Your task to perform on an android device: open app "Facebook Lite" (install if not already installed) Image 0: 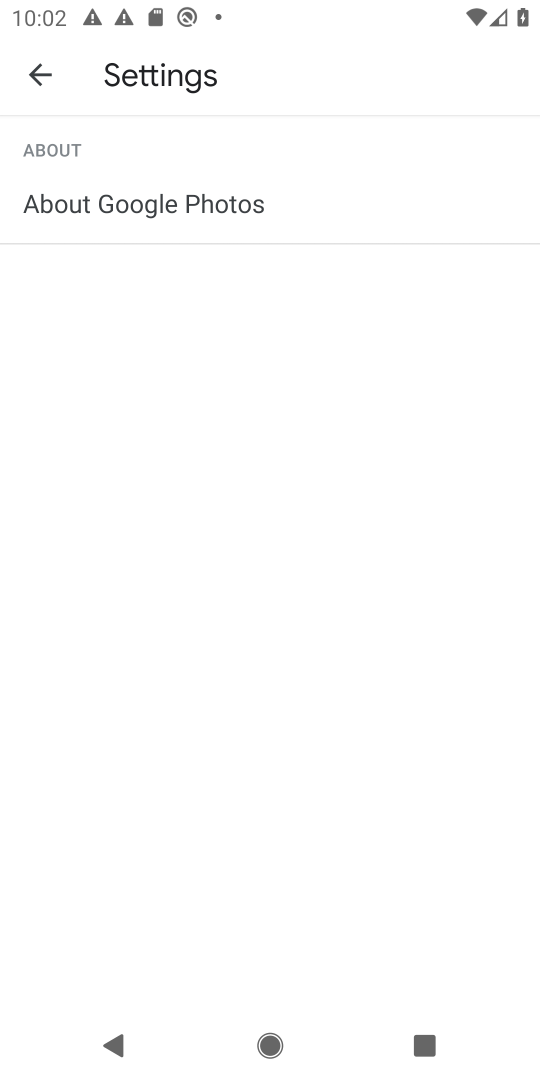
Step 0: drag from (238, 760) to (335, 220)
Your task to perform on an android device: open app "Facebook Lite" (install if not already installed) Image 1: 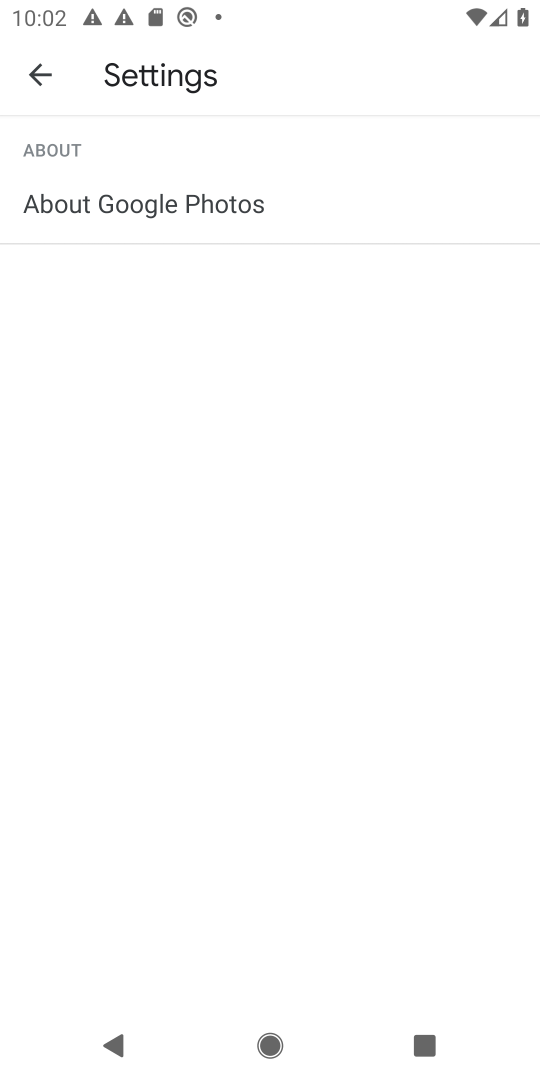
Step 1: press back button
Your task to perform on an android device: open app "Facebook Lite" (install if not already installed) Image 2: 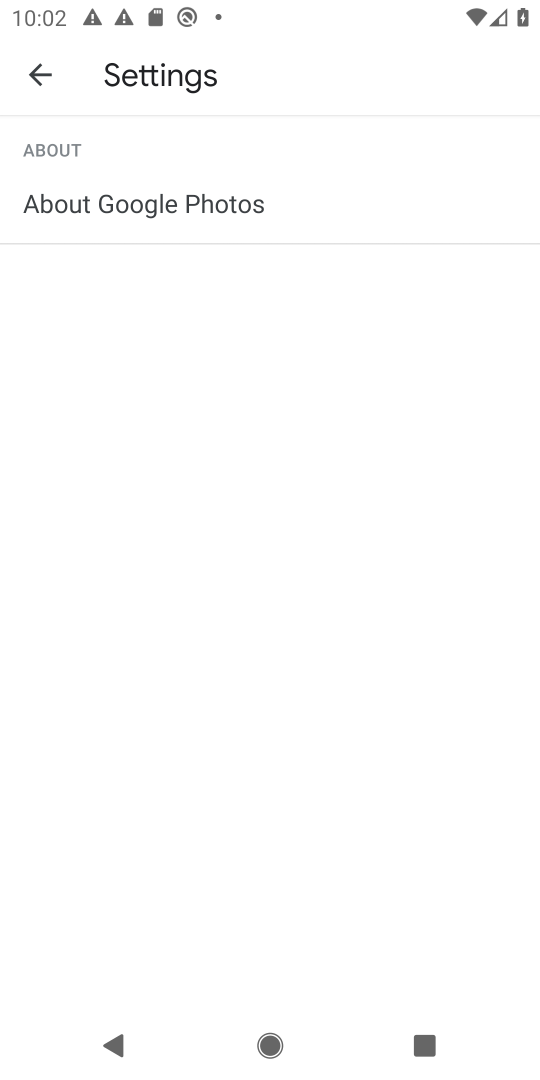
Step 2: press home button
Your task to perform on an android device: open app "Facebook Lite" (install if not already installed) Image 3: 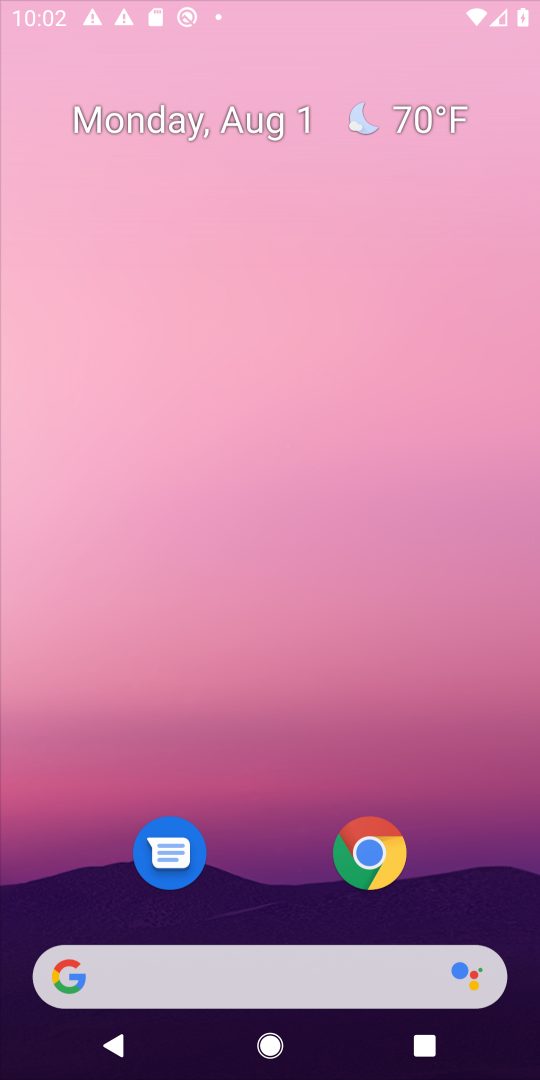
Step 3: drag from (248, 837) to (411, 155)
Your task to perform on an android device: open app "Facebook Lite" (install if not already installed) Image 4: 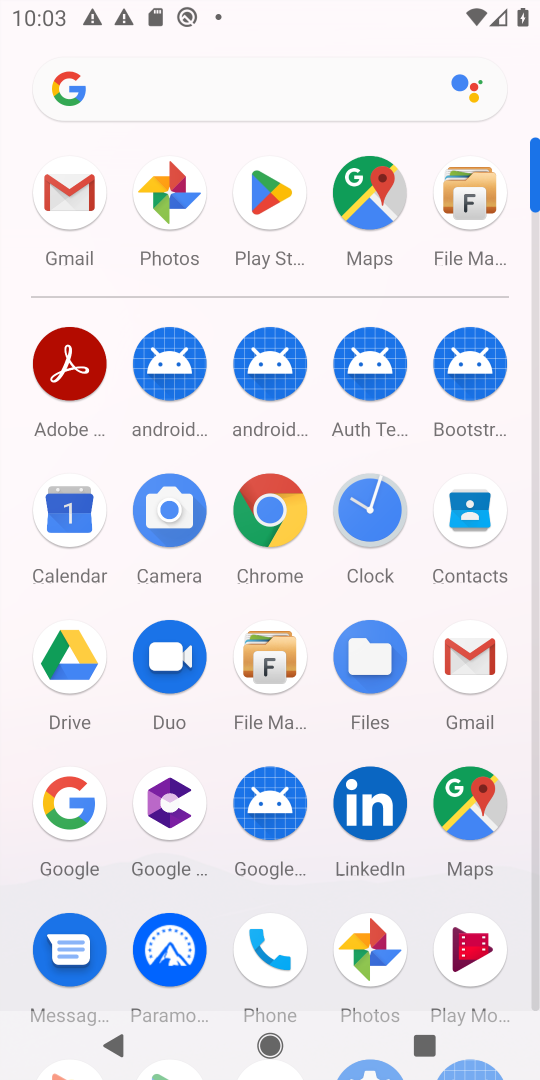
Step 4: drag from (223, 881) to (301, 363)
Your task to perform on an android device: open app "Facebook Lite" (install if not already installed) Image 5: 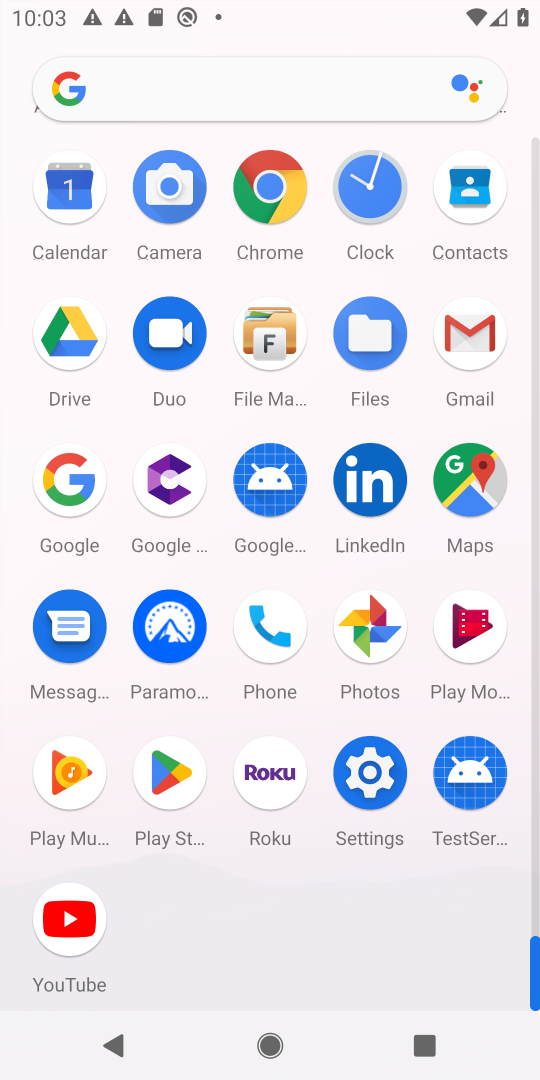
Step 5: click (167, 740)
Your task to perform on an android device: open app "Facebook Lite" (install if not already installed) Image 6: 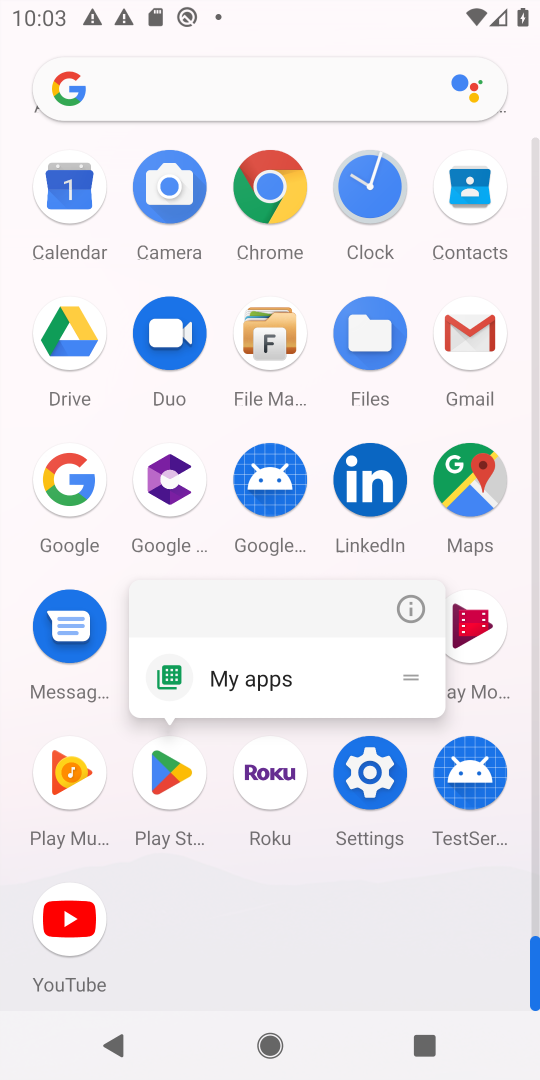
Step 6: click (406, 603)
Your task to perform on an android device: open app "Facebook Lite" (install if not already installed) Image 7: 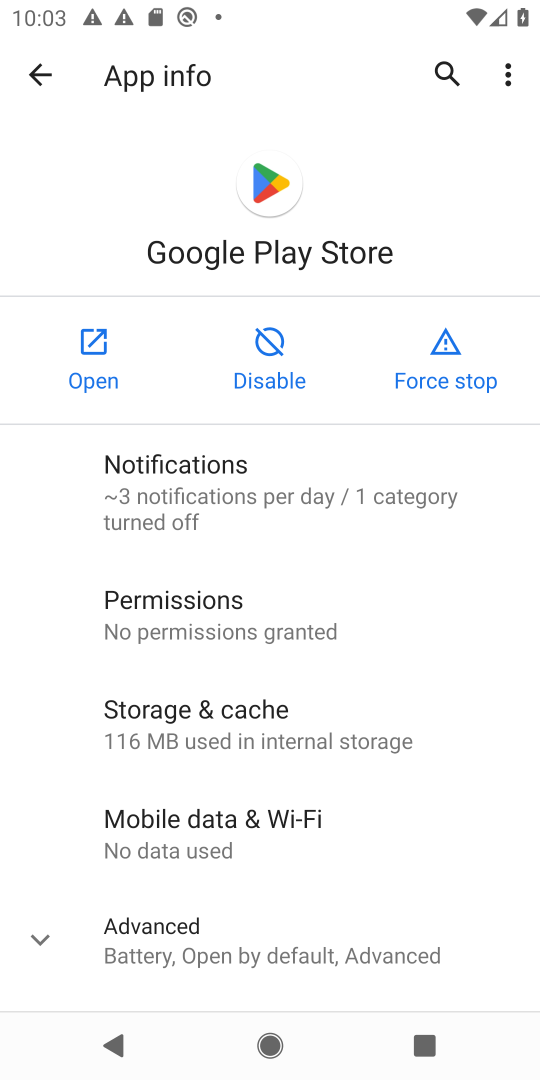
Step 7: click (92, 379)
Your task to perform on an android device: open app "Facebook Lite" (install if not already installed) Image 8: 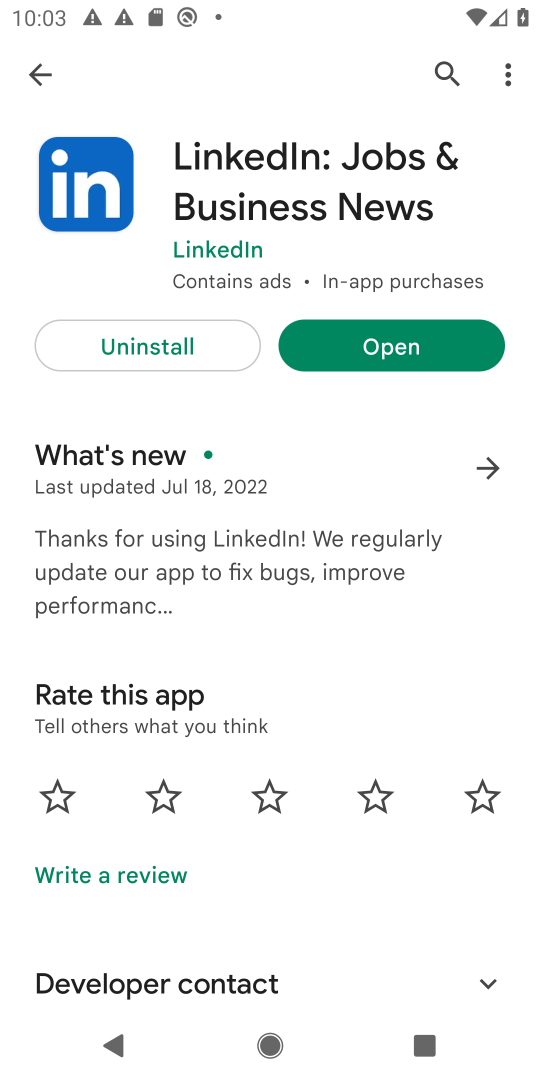
Step 8: click (396, 351)
Your task to perform on an android device: open app "Facebook Lite" (install if not already installed) Image 9: 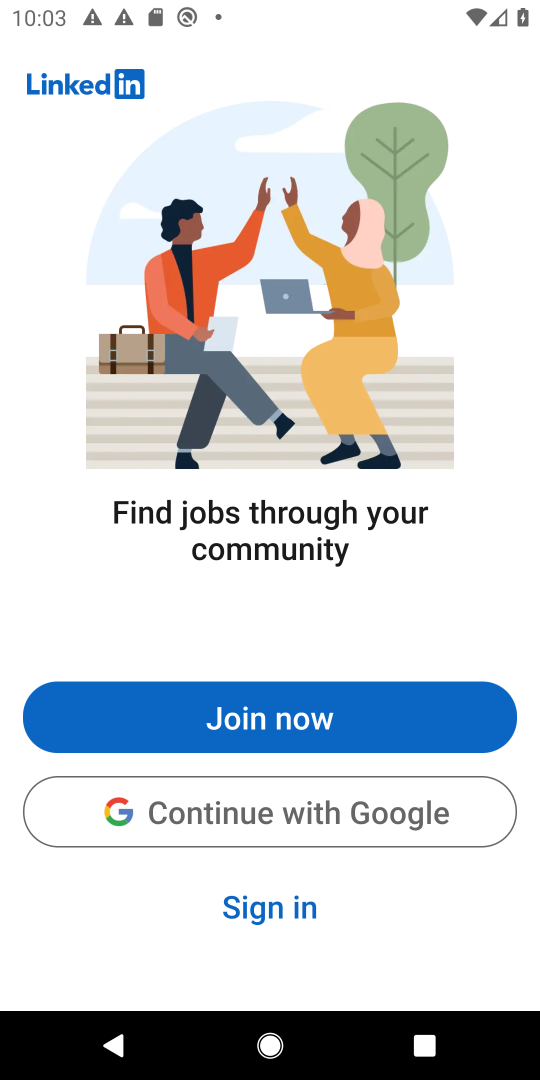
Step 9: press back button
Your task to perform on an android device: open app "Facebook Lite" (install if not already installed) Image 10: 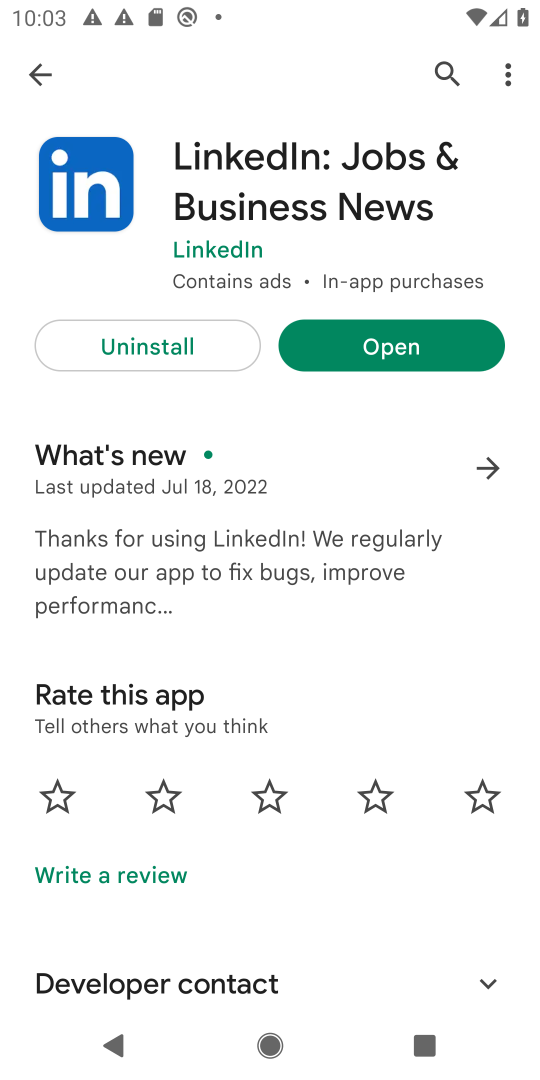
Step 10: click (465, 62)
Your task to perform on an android device: open app "Facebook Lite" (install if not already installed) Image 11: 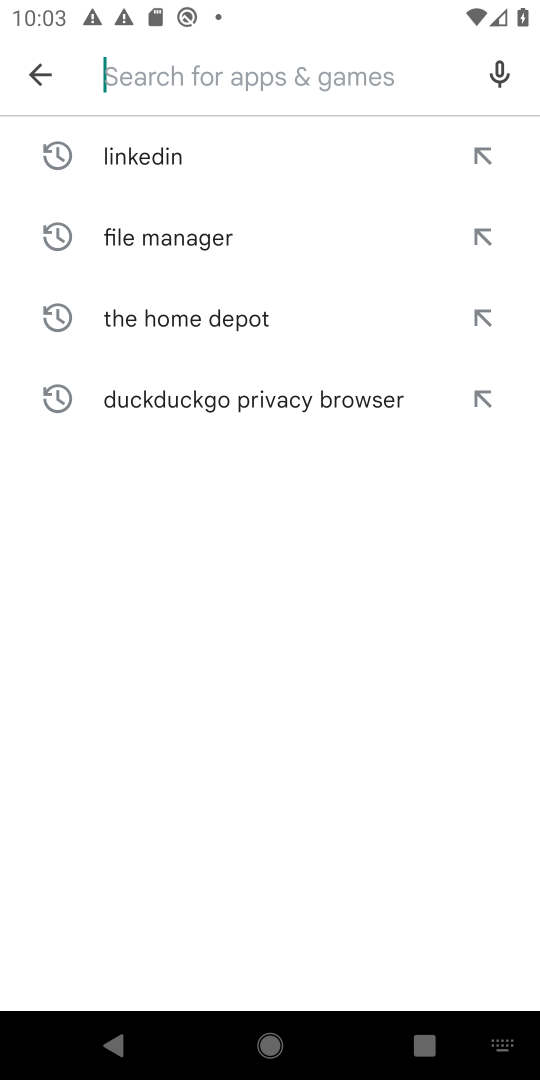
Step 11: click (169, 107)
Your task to perform on an android device: open app "Facebook Lite" (install if not already installed) Image 12: 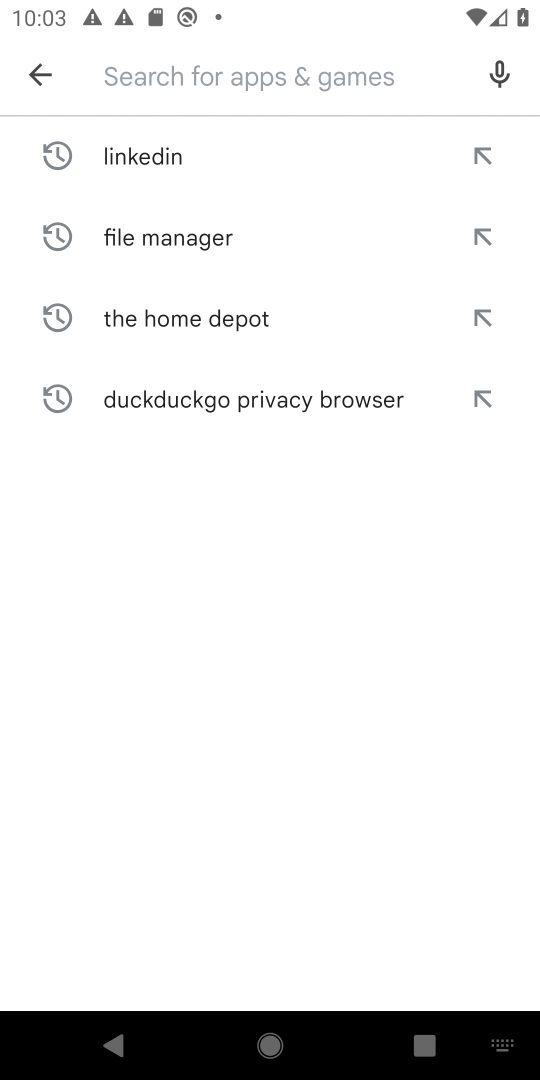
Step 12: click (149, 79)
Your task to perform on an android device: open app "Facebook Lite" (install if not already installed) Image 13: 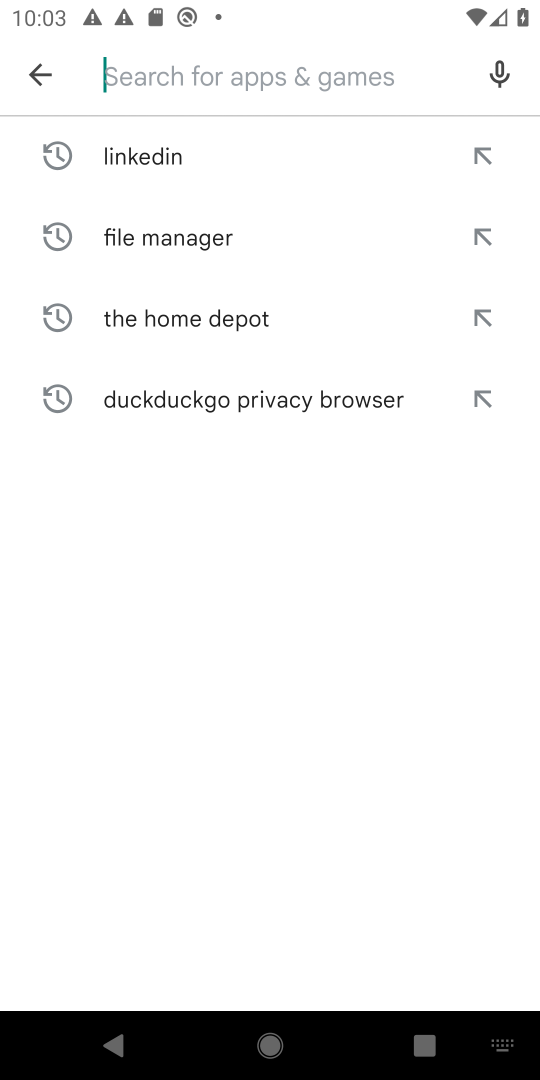
Step 13: type "Facebook Lite"
Your task to perform on an android device: open app "Facebook Lite" (install if not already installed) Image 14: 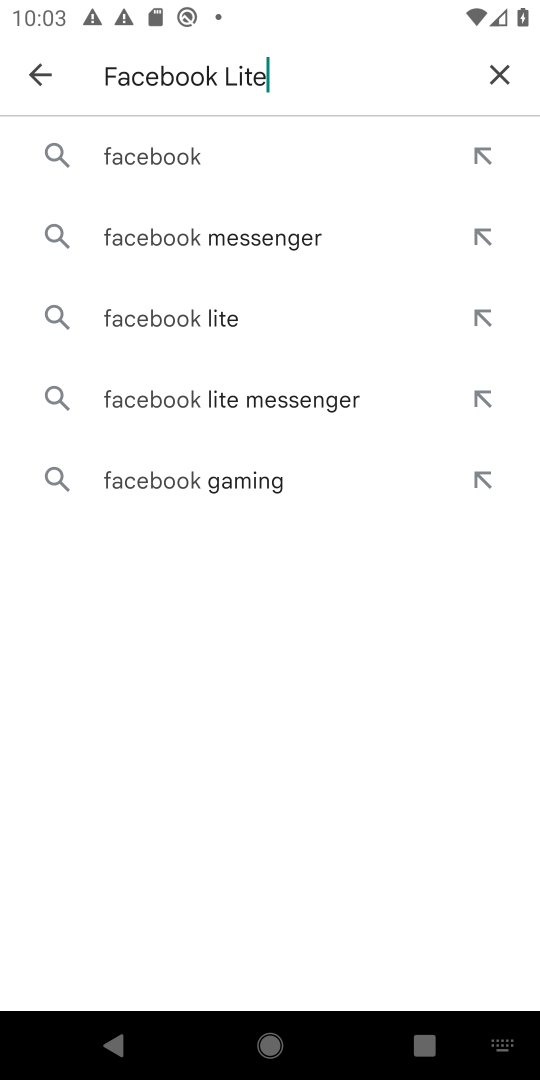
Step 14: type ""
Your task to perform on an android device: open app "Facebook Lite" (install if not already installed) Image 15: 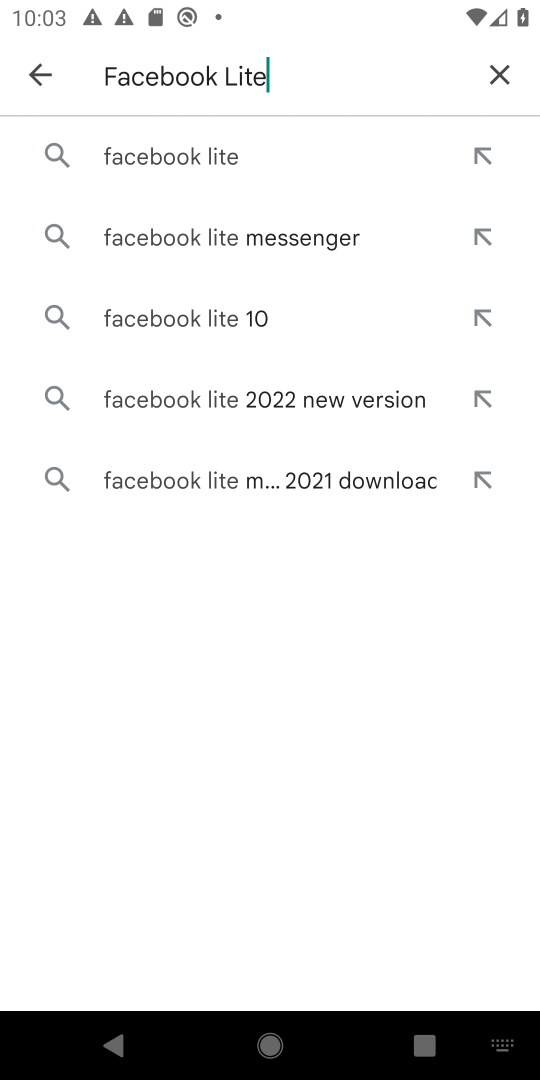
Step 15: click (158, 152)
Your task to perform on an android device: open app "Facebook Lite" (install if not already installed) Image 16: 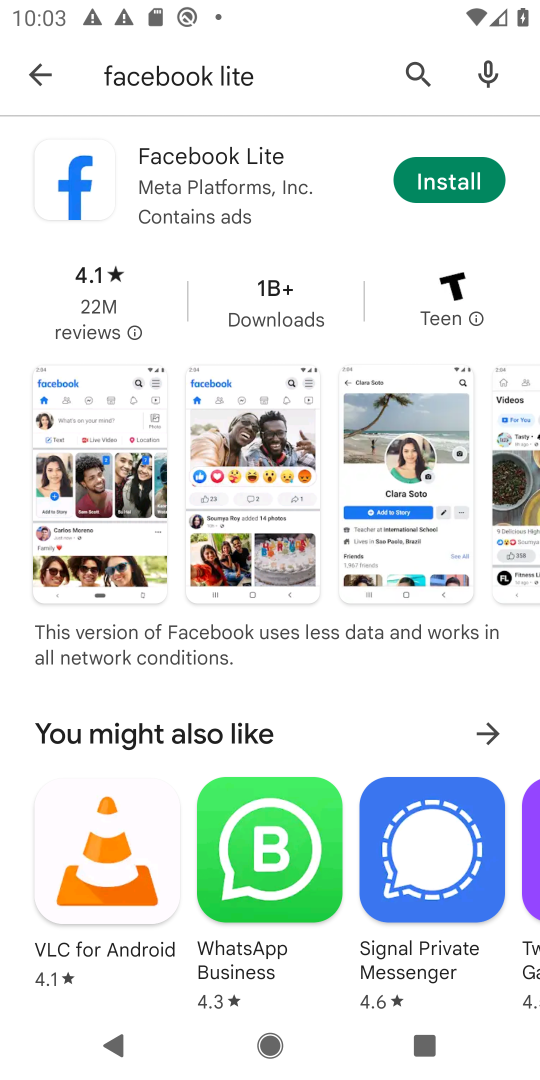
Step 16: click (194, 152)
Your task to perform on an android device: open app "Facebook Lite" (install if not already installed) Image 17: 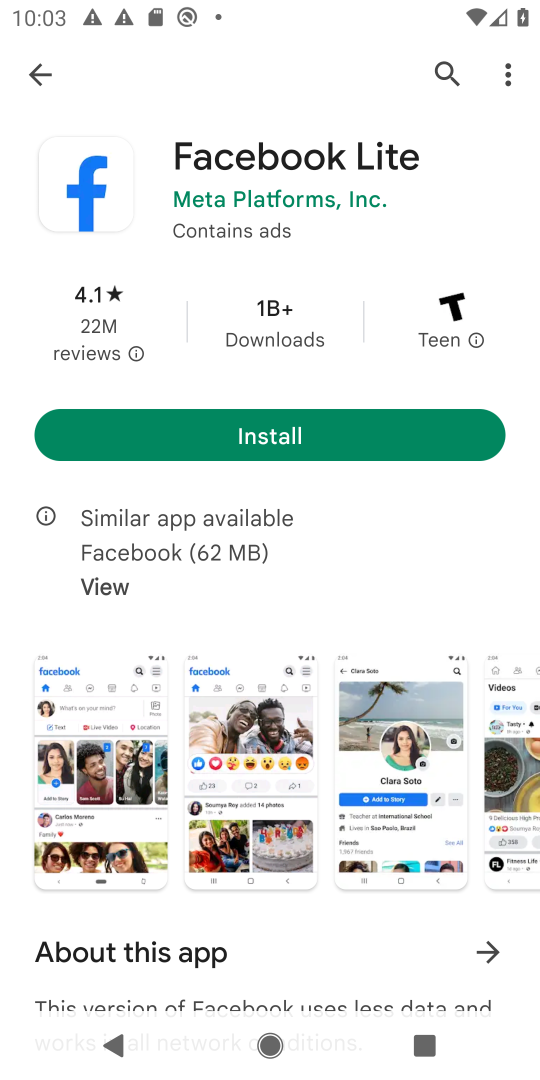
Step 17: click (226, 429)
Your task to perform on an android device: open app "Facebook Lite" (install if not already installed) Image 18: 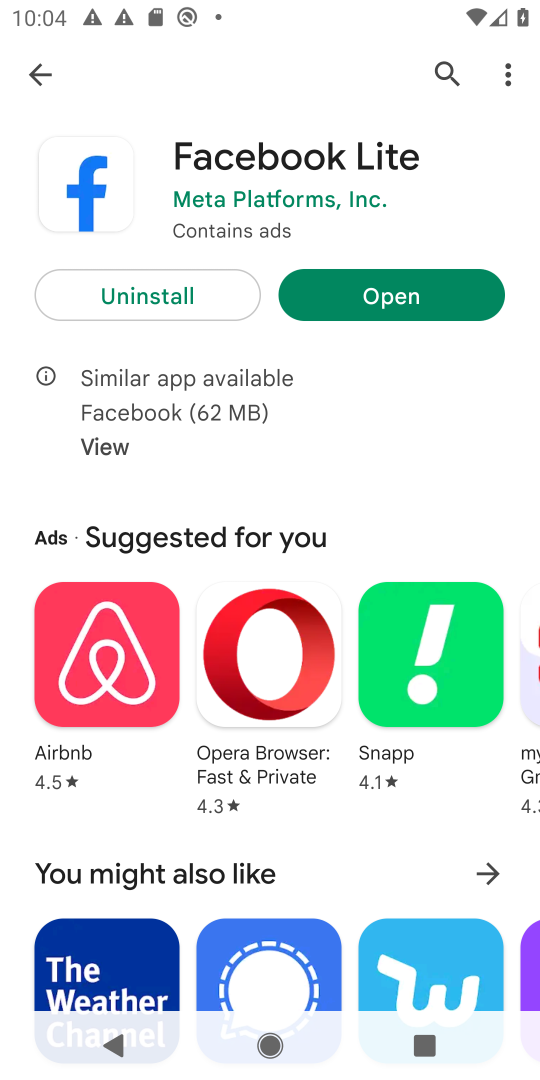
Step 18: click (348, 298)
Your task to perform on an android device: open app "Facebook Lite" (install if not already installed) Image 19: 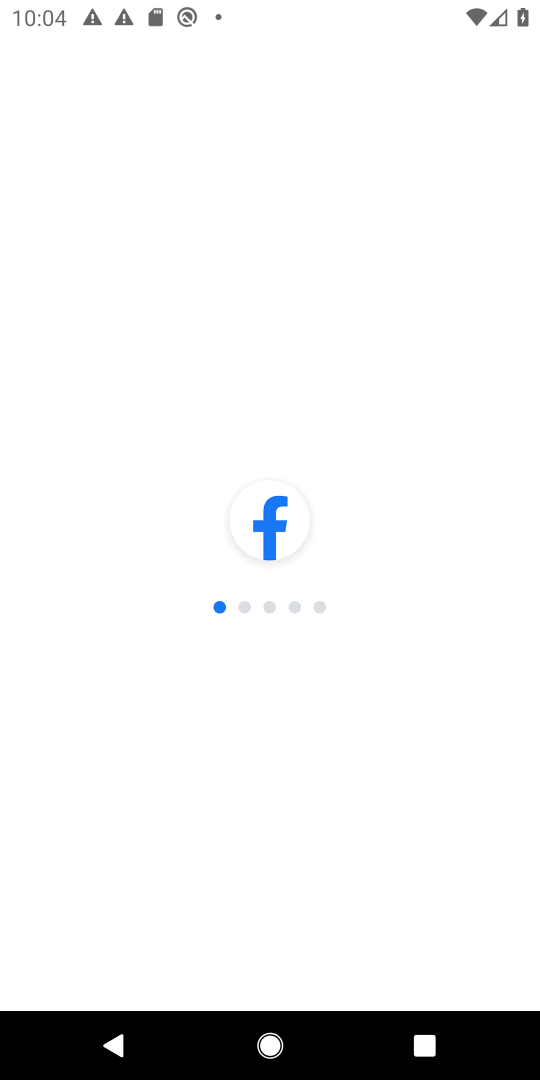
Step 19: task complete